Your task to perform on an android device: Search for a new eyeliner Image 0: 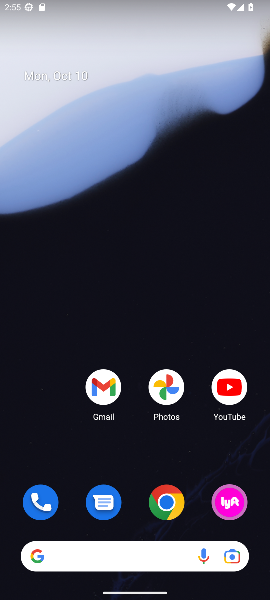
Step 0: click (159, 502)
Your task to perform on an android device: Search for a new eyeliner Image 1: 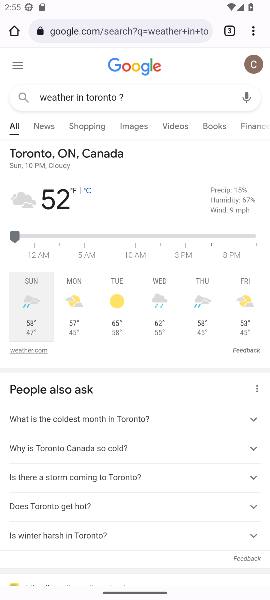
Step 1: click (154, 28)
Your task to perform on an android device: Search for a new eyeliner Image 2: 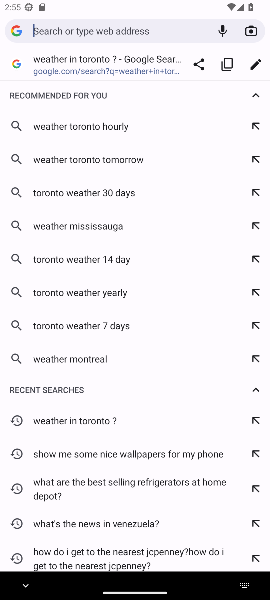
Step 2: type "new eyeliner"
Your task to perform on an android device: Search for a new eyeliner Image 3: 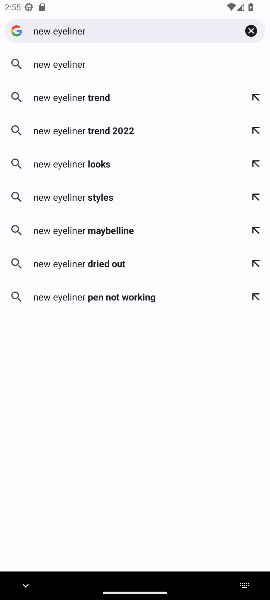
Step 3: click (84, 66)
Your task to perform on an android device: Search for a new eyeliner Image 4: 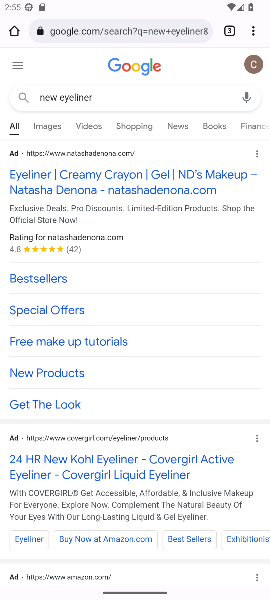
Step 4: click (125, 179)
Your task to perform on an android device: Search for a new eyeliner Image 5: 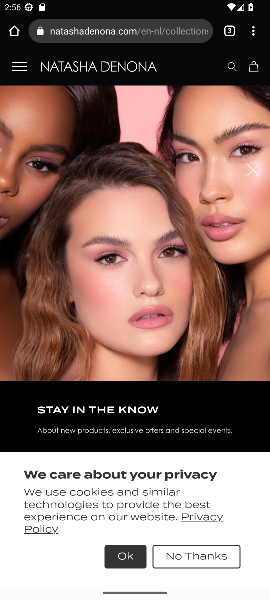
Step 5: task complete